Your task to perform on an android device: Play the last video I watched on Youtube Image 0: 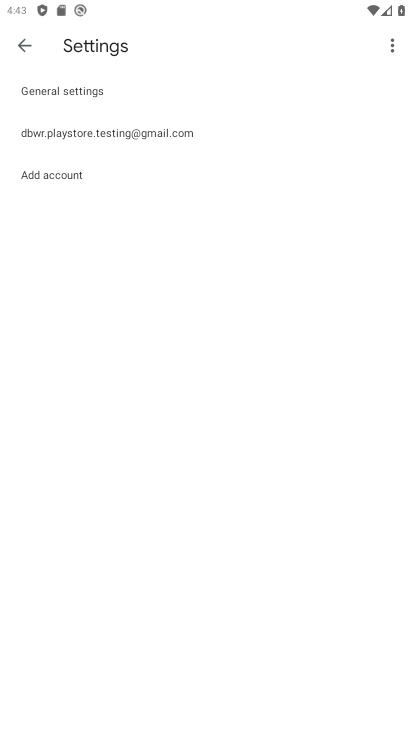
Step 0: press home button
Your task to perform on an android device: Play the last video I watched on Youtube Image 1: 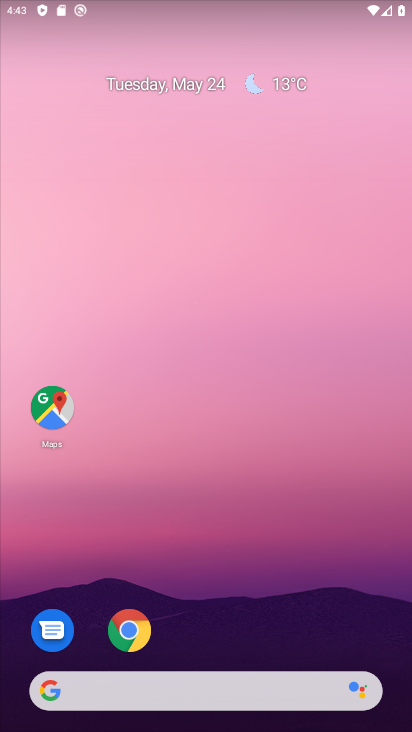
Step 1: drag from (193, 639) to (172, 12)
Your task to perform on an android device: Play the last video I watched on Youtube Image 2: 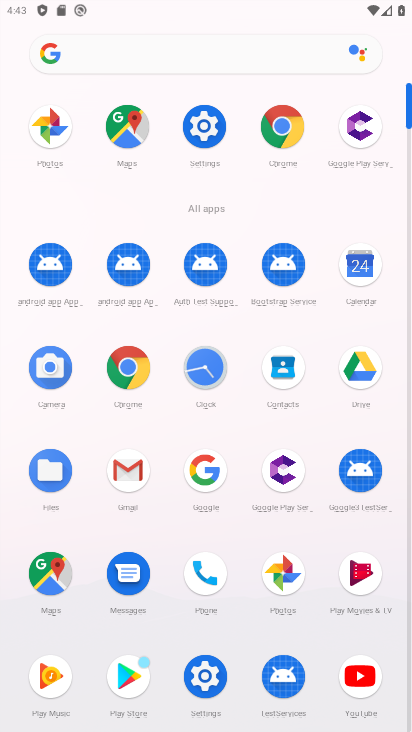
Step 2: click (362, 687)
Your task to perform on an android device: Play the last video I watched on Youtube Image 3: 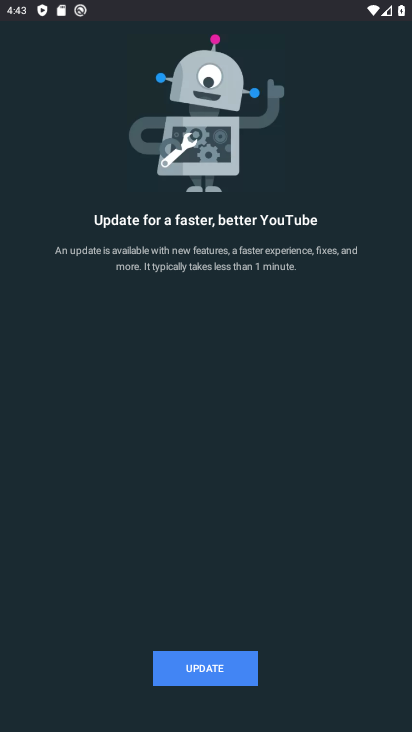
Step 3: click (187, 685)
Your task to perform on an android device: Play the last video I watched on Youtube Image 4: 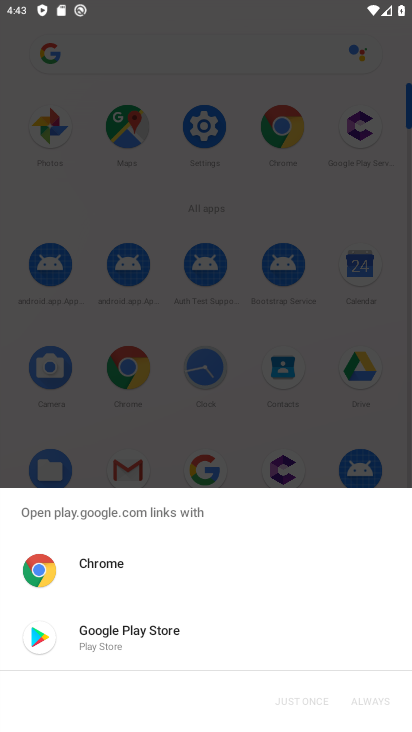
Step 4: click (136, 640)
Your task to perform on an android device: Play the last video I watched on Youtube Image 5: 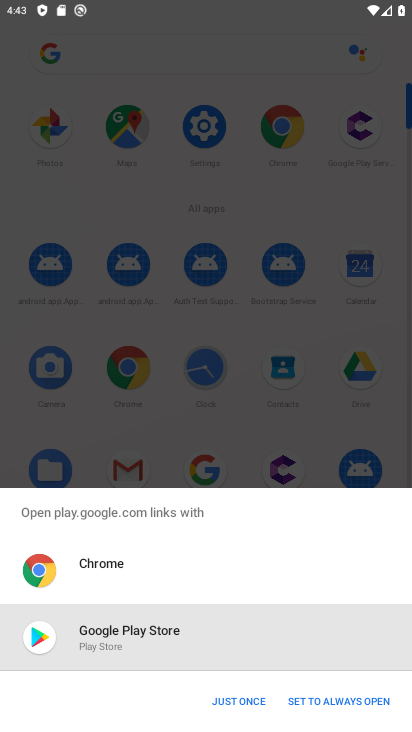
Step 5: click (328, 701)
Your task to perform on an android device: Play the last video I watched on Youtube Image 6: 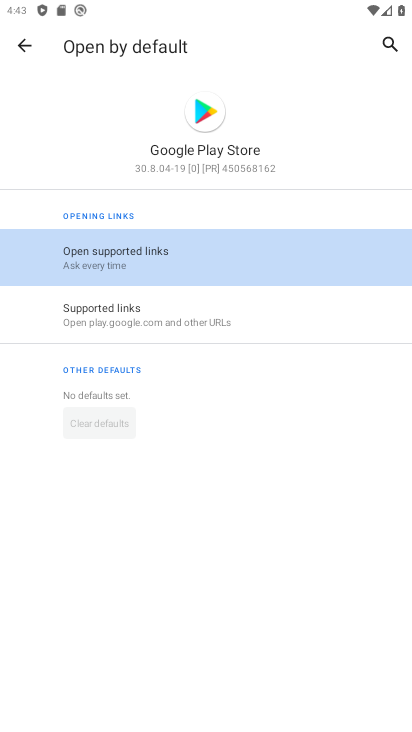
Step 6: click (141, 252)
Your task to perform on an android device: Play the last video I watched on Youtube Image 7: 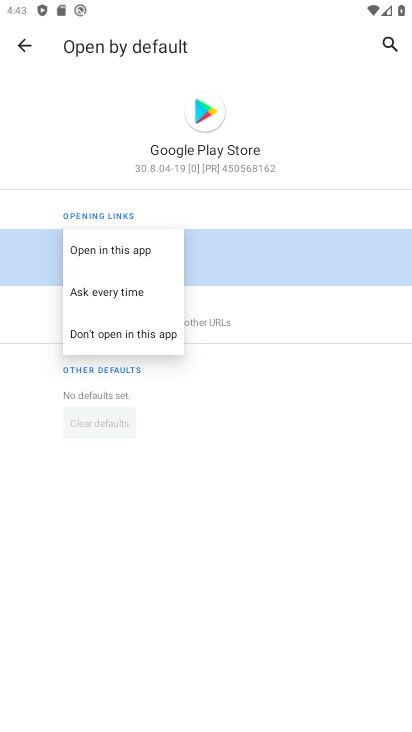
Step 7: click (139, 250)
Your task to perform on an android device: Play the last video I watched on Youtube Image 8: 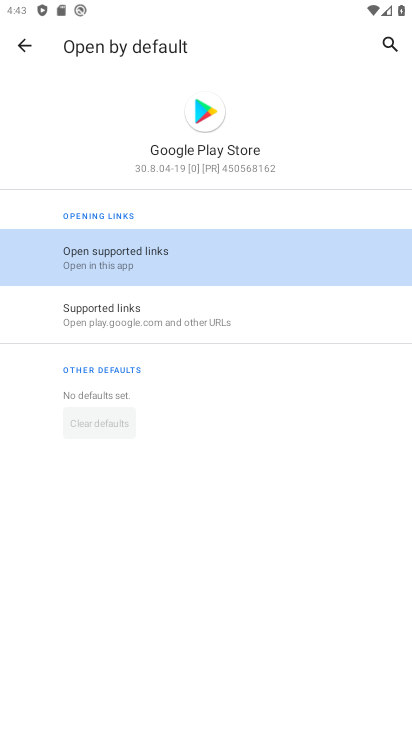
Step 8: click (21, 45)
Your task to perform on an android device: Play the last video I watched on Youtube Image 9: 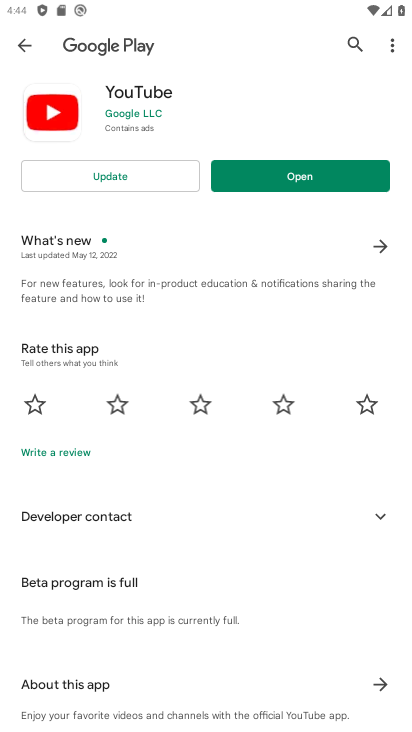
Step 9: click (115, 176)
Your task to perform on an android device: Play the last video I watched on Youtube Image 10: 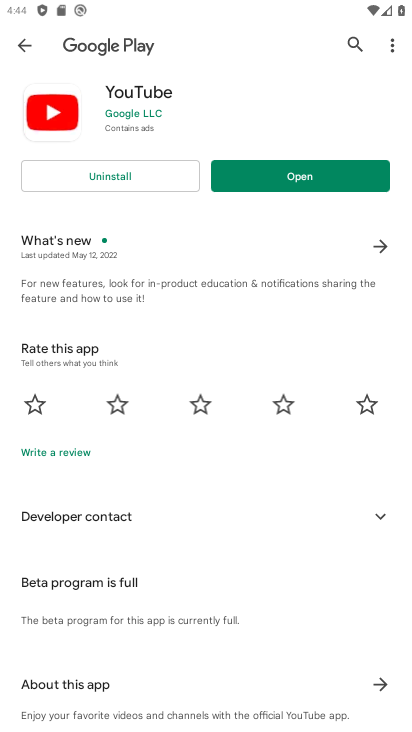
Step 10: click (277, 179)
Your task to perform on an android device: Play the last video I watched on Youtube Image 11: 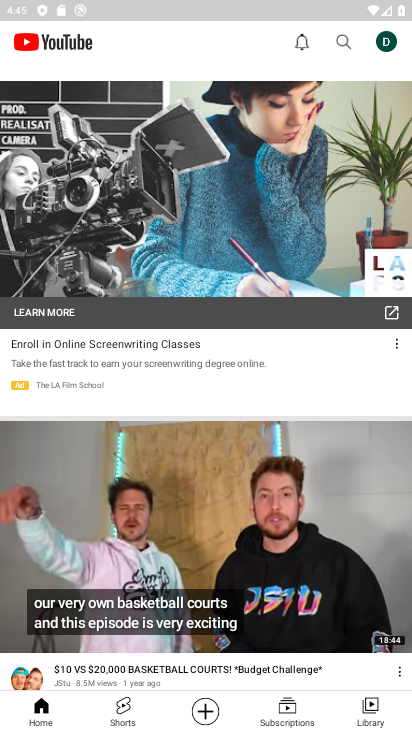
Step 11: click (374, 703)
Your task to perform on an android device: Play the last video I watched on Youtube Image 12: 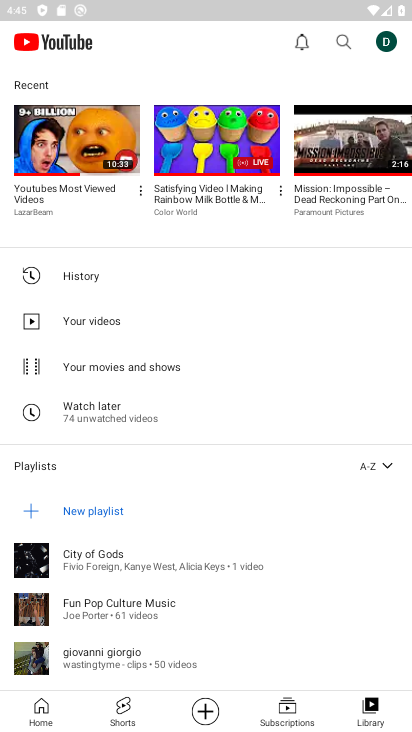
Step 12: task complete